Your task to perform on an android device: See recent photos Image 0: 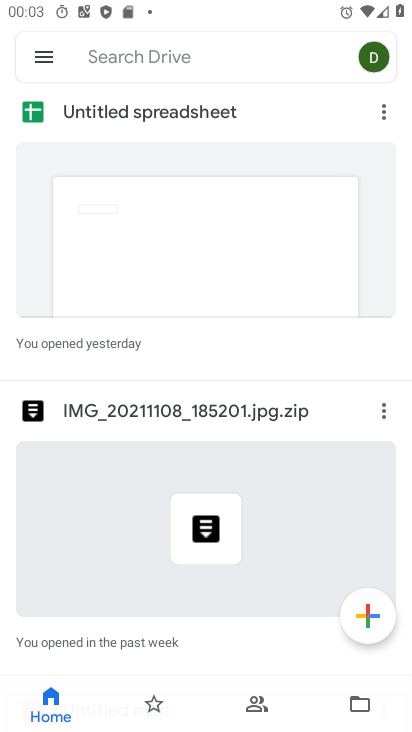
Step 0: press home button
Your task to perform on an android device: See recent photos Image 1: 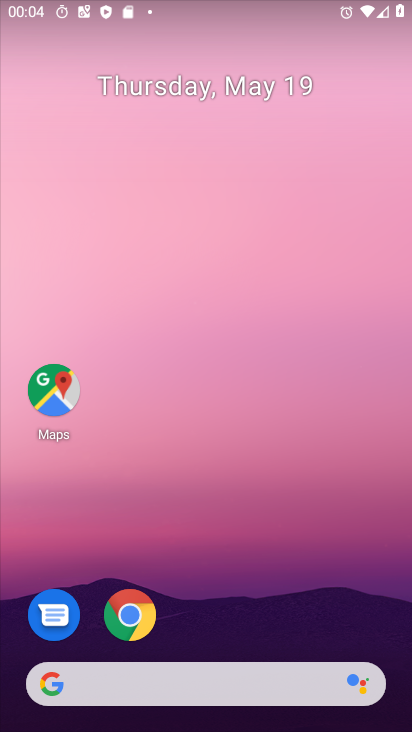
Step 1: drag from (16, 551) to (142, 261)
Your task to perform on an android device: See recent photos Image 2: 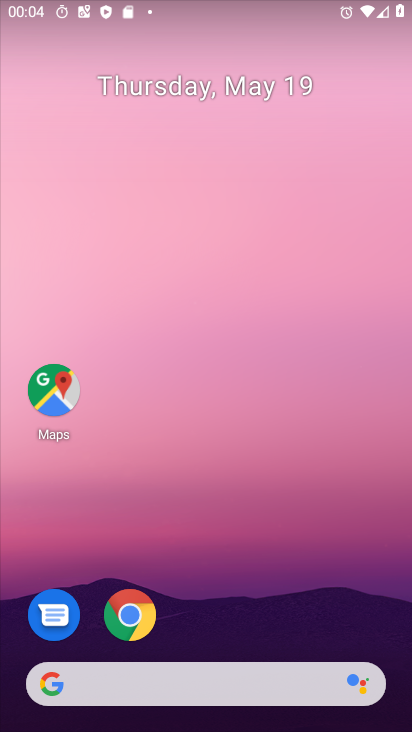
Step 2: drag from (15, 604) to (230, 268)
Your task to perform on an android device: See recent photos Image 3: 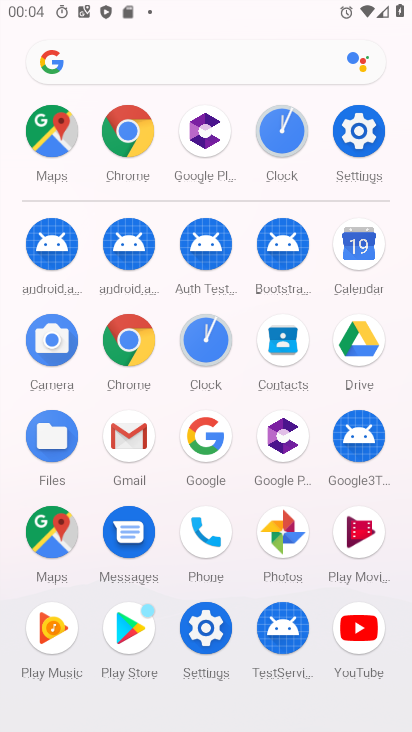
Step 3: click (271, 530)
Your task to perform on an android device: See recent photos Image 4: 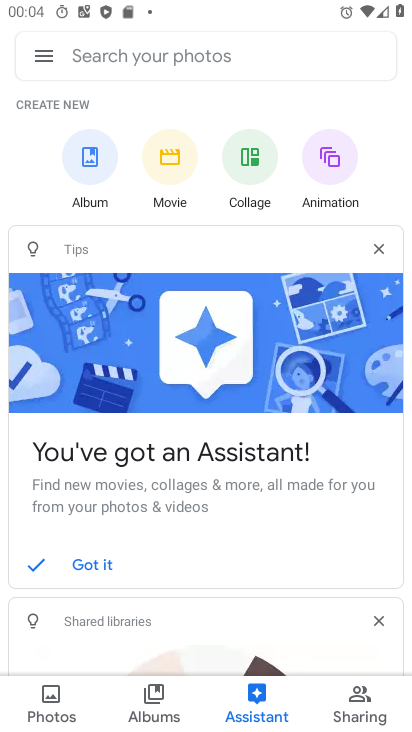
Step 4: click (60, 708)
Your task to perform on an android device: See recent photos Image 5: 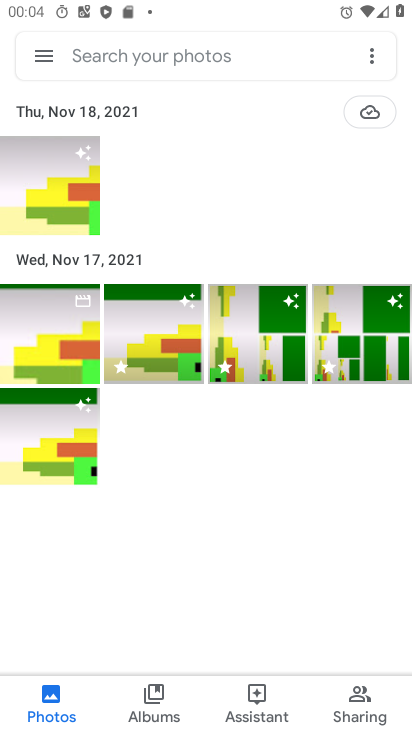
Step 5: task complete